Your task to perform on an android device: allow notifications from all sites in the chrome app Image 0: 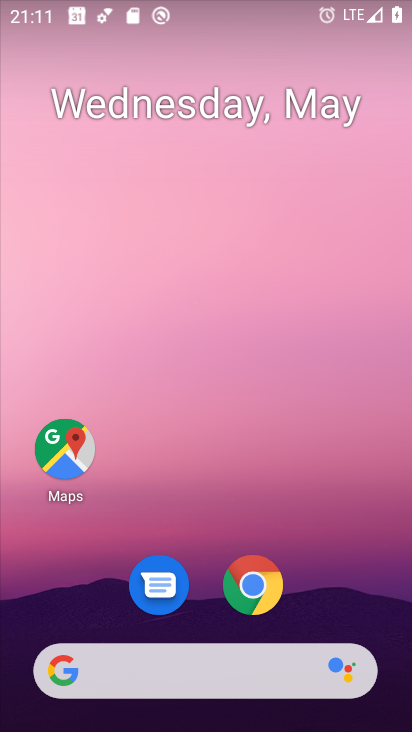
Step 0: click (267, 582)
Your task to perform on an android device: allow notifications from all sites in the chrome app Image 1: 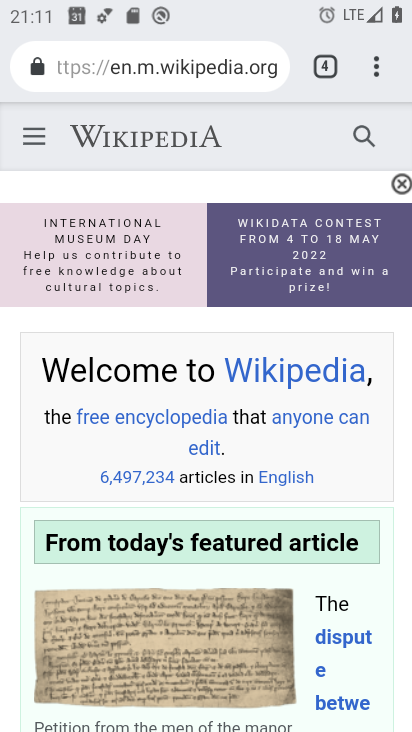
Step 1: click (376, 69)
Your task to perform on an android device: allow notifications from all sites in the chrome app Image 2: 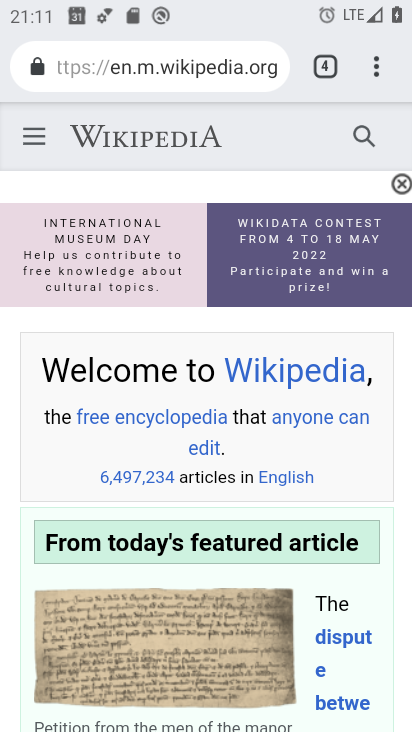
Step 2: click (376, 69)
Your task to perform on an android device: allow notifications from all sites in the chrome app Image 3: 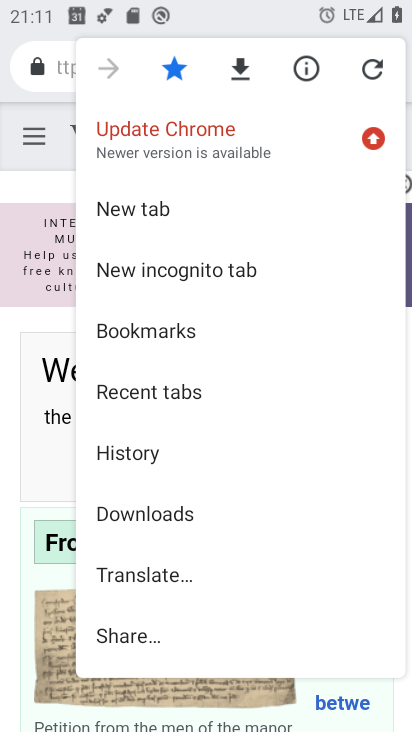
Step 3: drag from (252, 515) to (264, 123)
Your task to perform on an android device: allow notifications from all sites in the chrome app Image 4: 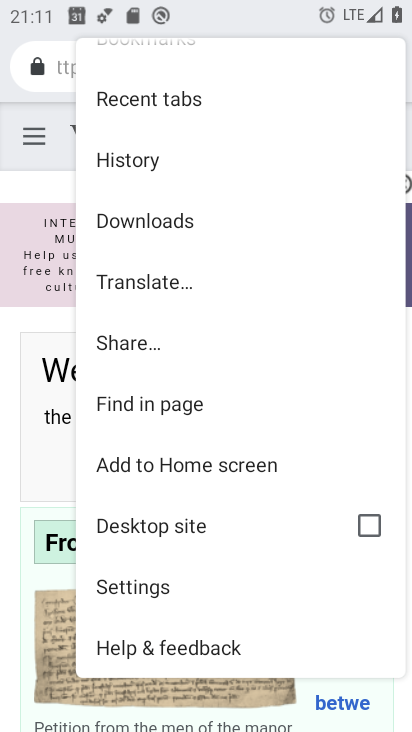
Step 4: click (172, 584)
Your task to perform on an android device: allow notifications from all sites in the chrome app Image 5: 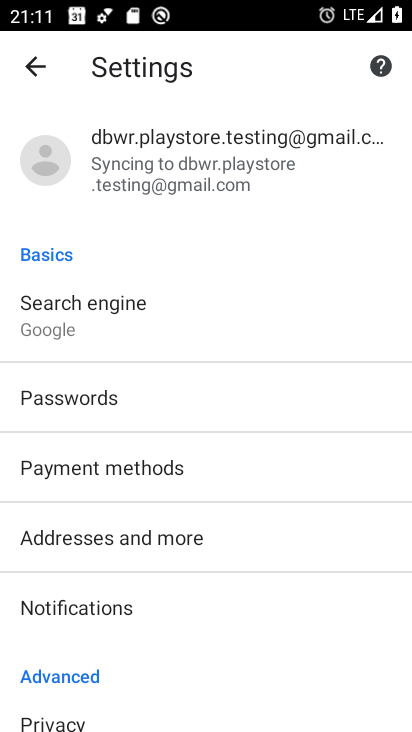
Step 5: click (221, 606)
Your task to perform on an android device: allow notifications from all sites in the chrome app Image 6: 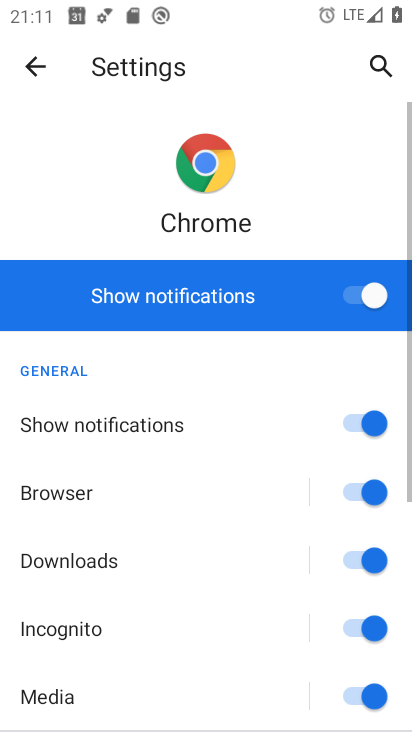
Step 6: task complete